Your task to perform on an android device: open wifi settings Image 0: 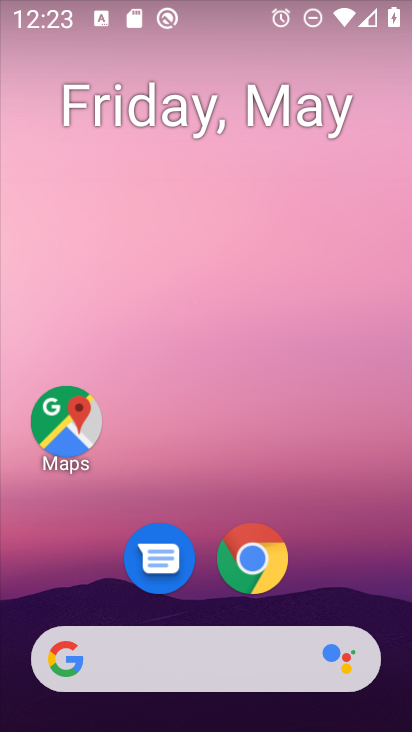
Step 0: drag from (387, 621) to (356, 57)
Your task to perform on an android device: open wifi settings Image 1: 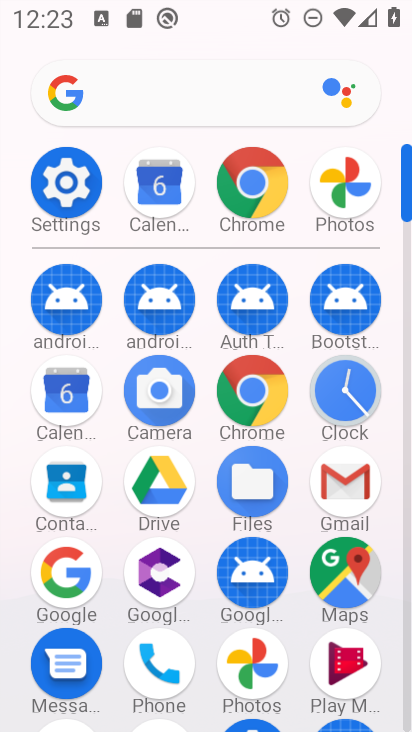
Step 1: click (407, 718)
Your task to perform on an android device: open wifi settings Image 2: 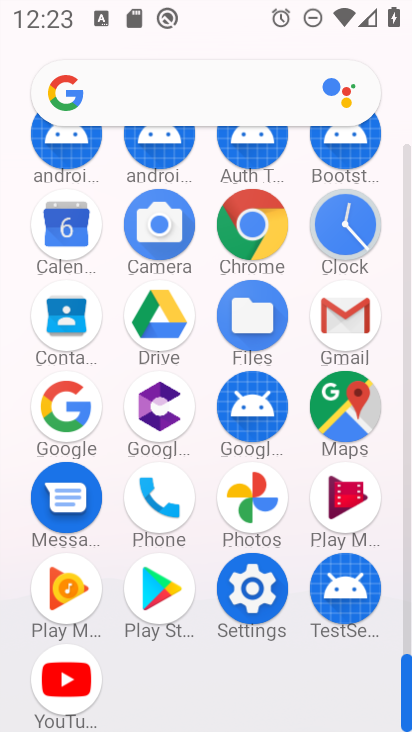
Step 2: click (252, 586)
Your task to perform on an android device: open wifi settings Image 3: 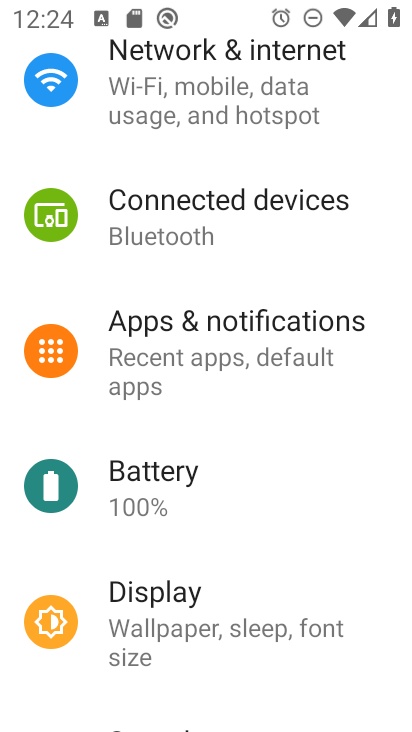
Step 3: drag from (320, 190) to (300, 374)
Your task to perform on an android device: open wifi settings Image 4: 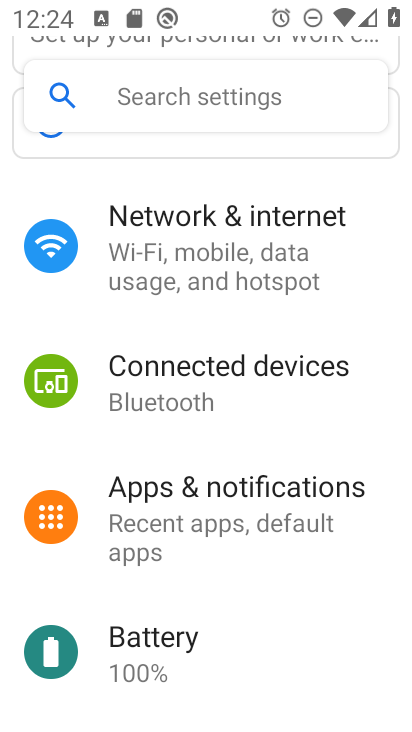
Step 4: click (151, 226)
Your task to perform on an android device: open wifi settings Image 5: 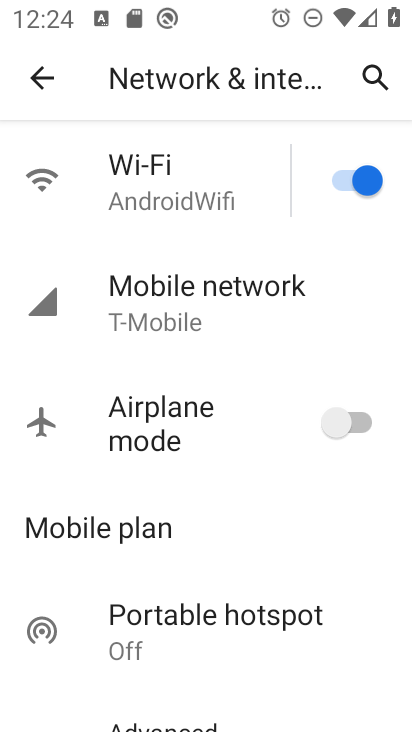
Step 5: click (150, 196)
Your task to perform on an android device: open wifi settings Image 6: 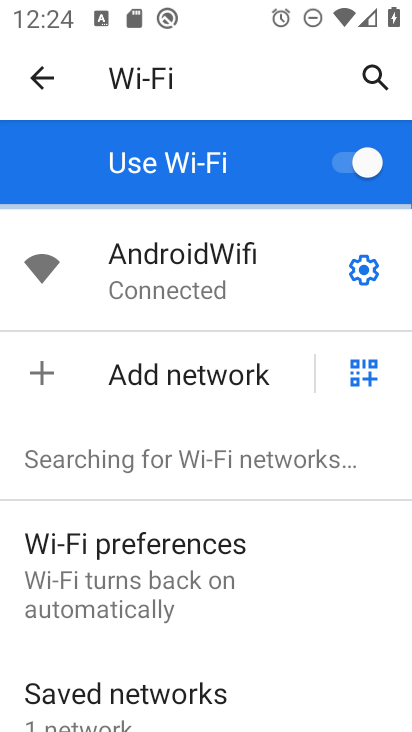
Step 6: drag from (209, 634) to (261, 277)
Your task to perform on an android device: open wifi settings Image 7: 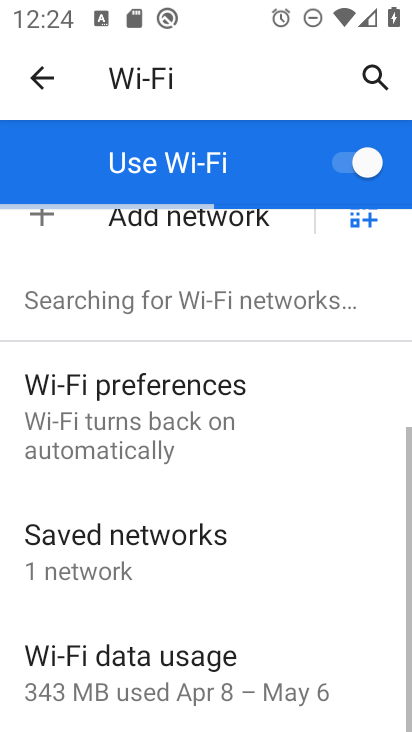
Step 7: drag from (302, 342) to (241, 681)
Your task to perform on an android device: open wifi settings Image 8: 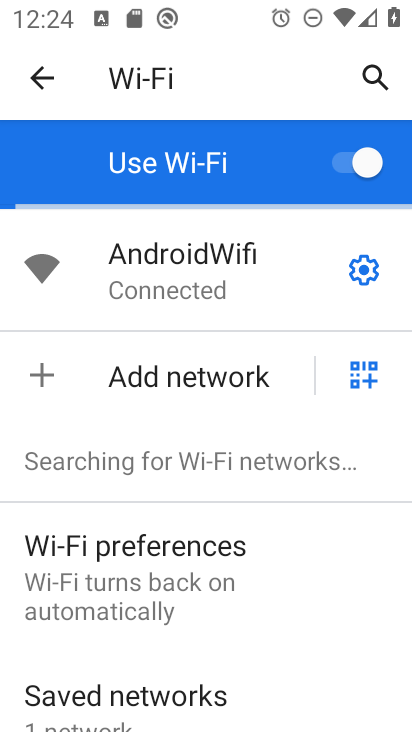
Step 8: click (360, 265)
Your task to perform on an android device: open wifi settings Image 9: 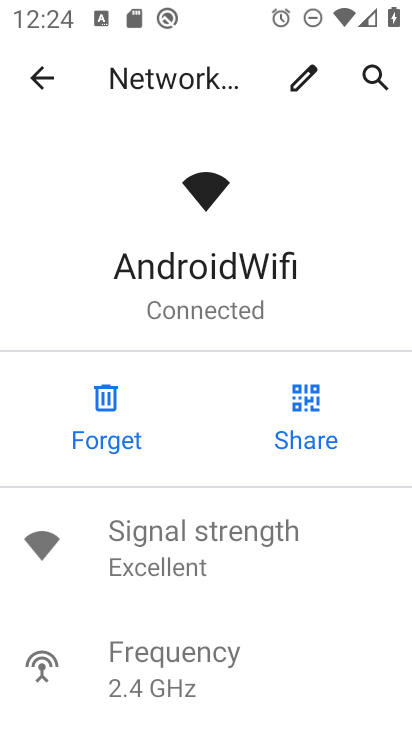
Step 9: drag from (235, 684) to (225, 301)
Your task to perform on an android device: open wifi settings Image 10: 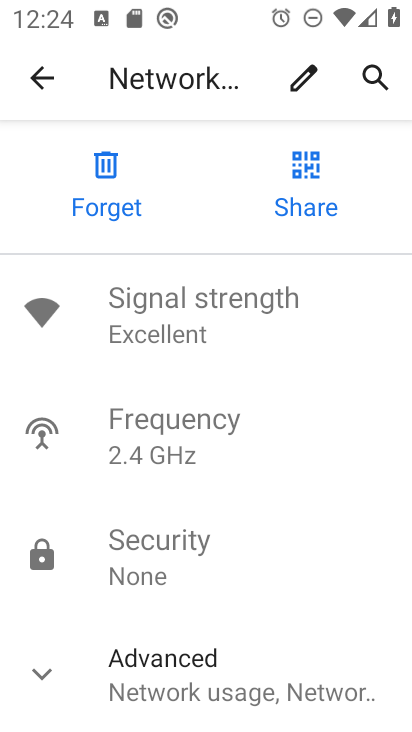
Step 10: click (65, 681)
Your task to perform on an android device: open wifi settings Image 11: 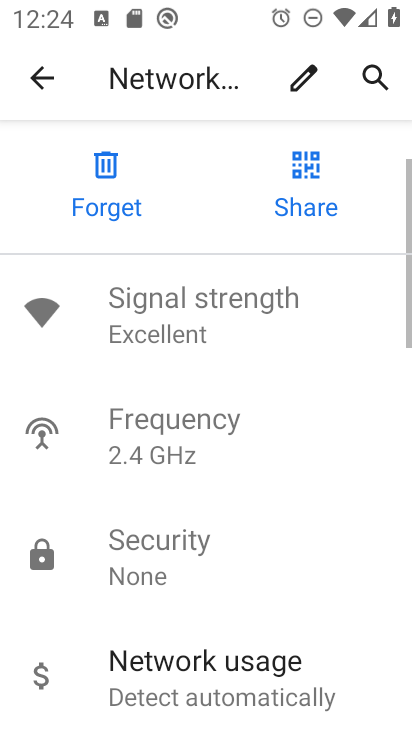
Step 11: task complete